Your task to perform on an android device: Go to Google maps Image 0: 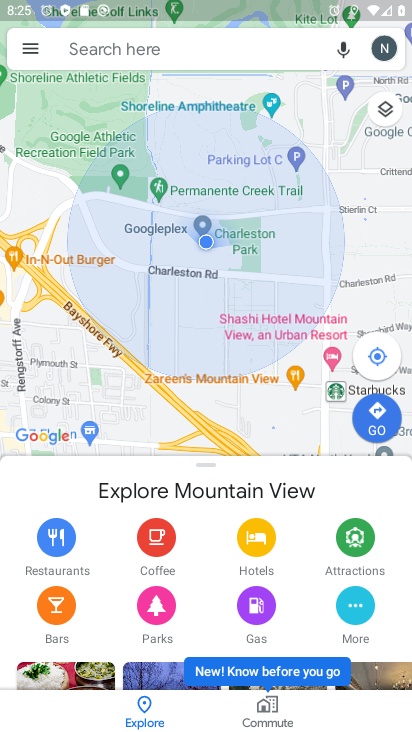
Step 0: task complete